Your task to perform on an android device: install app "Expedia: Hotels, Flights & Car" Image 0: 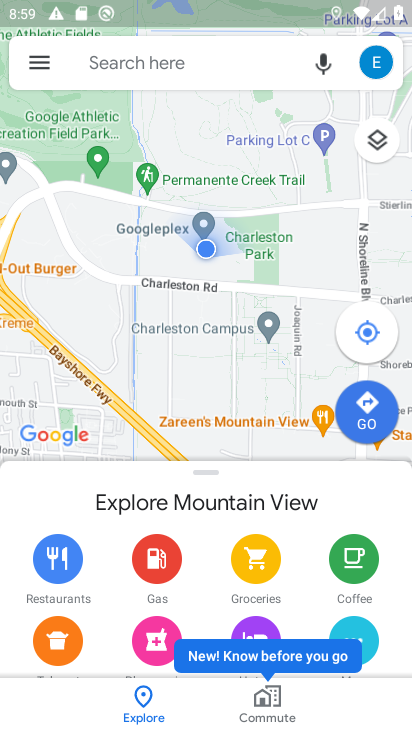
Step 0: press home button
Your task to perform on an android device: install app "Expedia: Hotels, Flights & Car" Image 1: 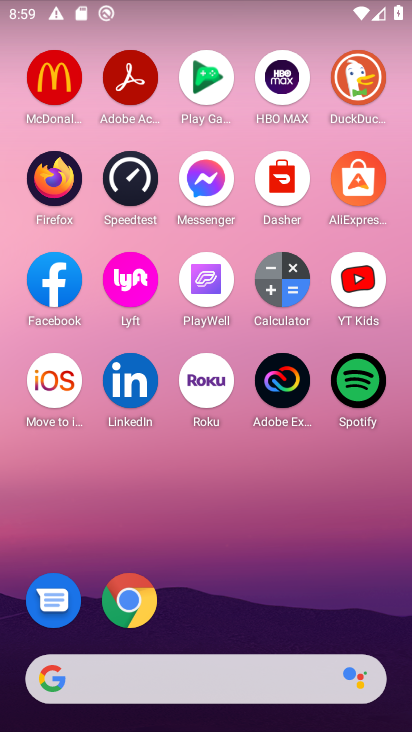
Step 1: drag from (241, 610) to (235, 117)
Your task to perform on an android device: install app "Expedia: Hotels, Flights & Car" Image 2: 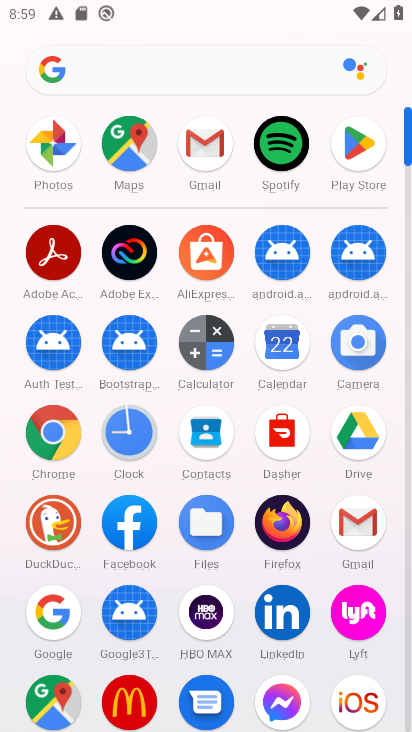
Step 2: click (356, 143)
Your task to perform on an android device: install app "Expedia: Hotels, Flights & Car" Image 3: 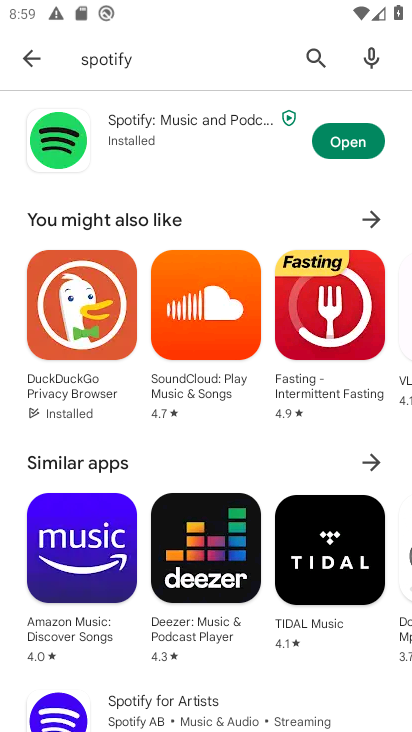
Step 3: click (323, 56)
Your task to perform on an android device: install app "Expedia: Hotels, Flights & Car" Image 4: 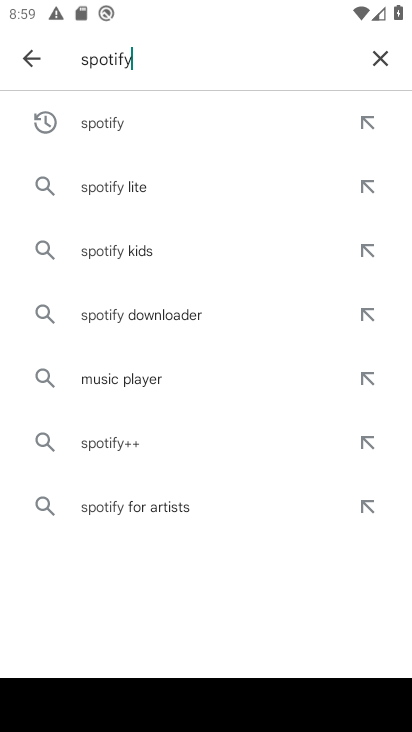
Step 4: click (390, 63)
Your task to perform on an android device: install app "Expedia: Hotels, Flights & Car" Image 5: 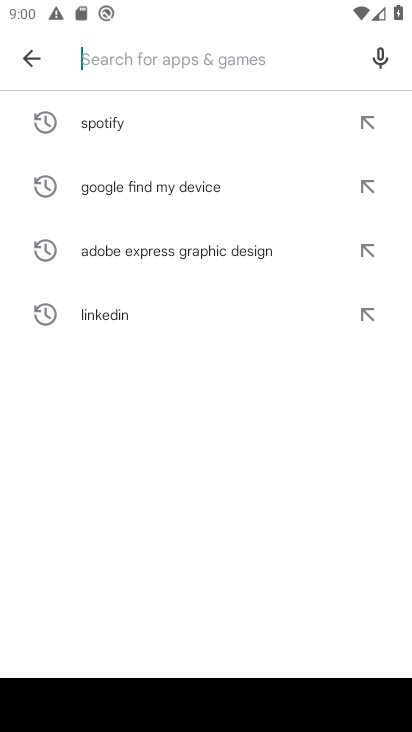
Step 5: type "Expedia: Hotels, Flights & Car"
Your task to perform on an android device: install app "Expedia: Hotels, Flights & Car" Image 6: 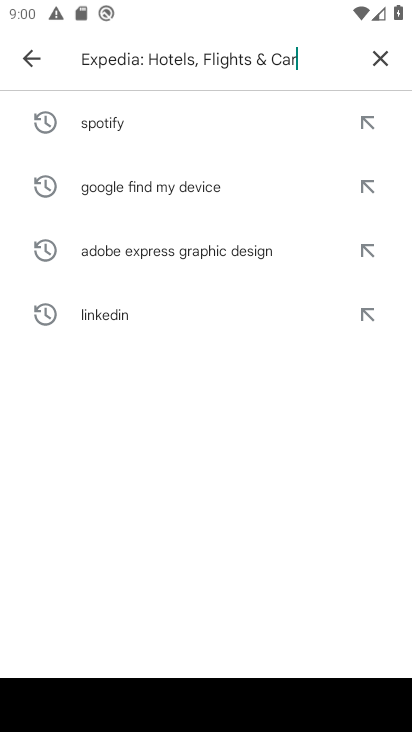
Step 6: type ""
Your task to perform on an android device: install app "Expedia: Hotels, Flights & Car" Image 7: 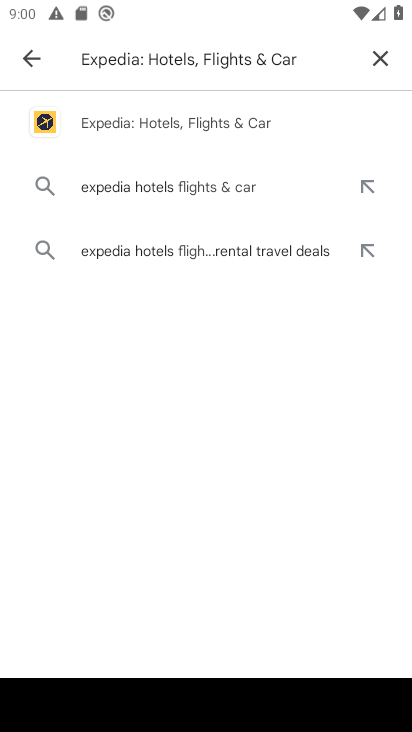
Step 7: click (163, 116)
Your task to perform on an android device: install app "Expedia: Hotels, Flights & Car" Image 8: 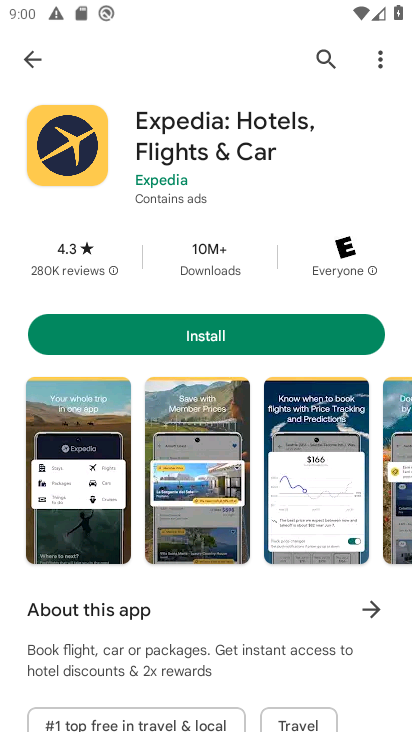
Step 8: click (244, 333)
Your task to perform on an android device: install app "Expedia: Hotels, Flights & Car" Image 9: 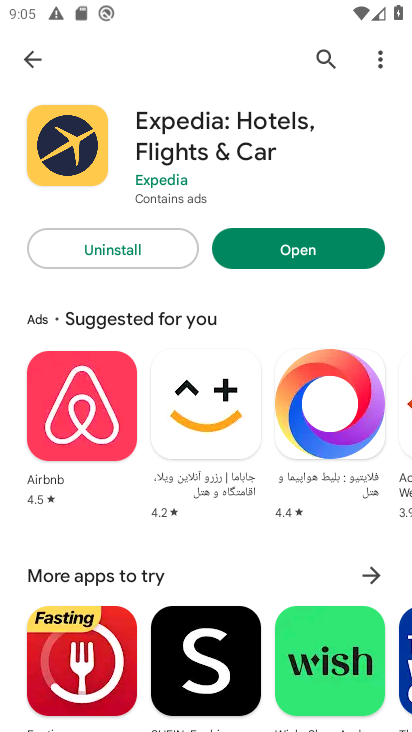
Step 9: task complete